Your task to perform on an android device: delete a single message in the gmail app Image 0: 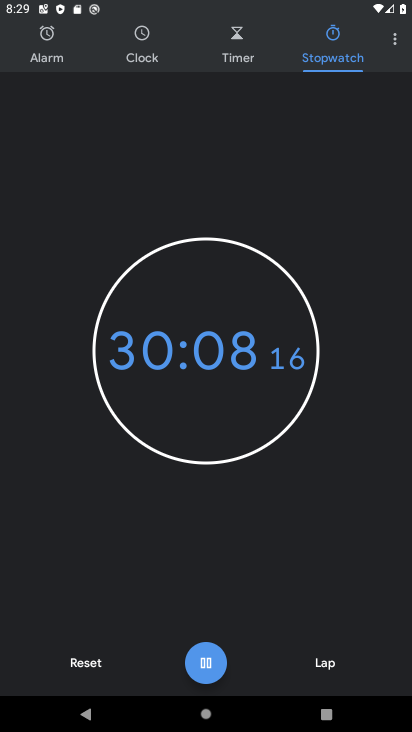
Step 0: press home button
Your task to perform on an android device: delete a single message in the gmail app Image 1: 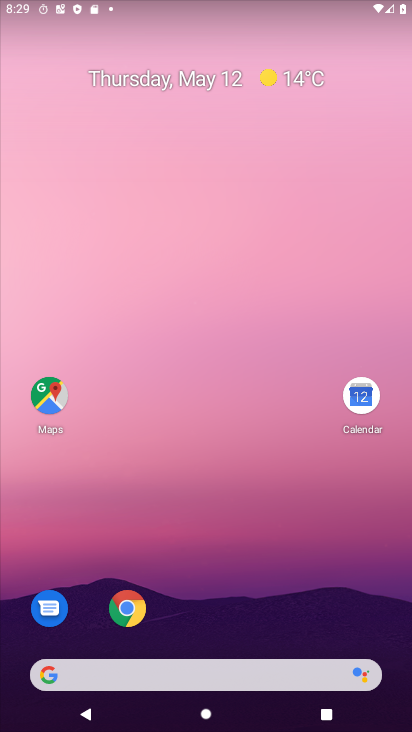
Step 1: drag from (267, 583) to (398, 185)
Your task to perform on an android device: delete a single message in the gmail app Image 2: 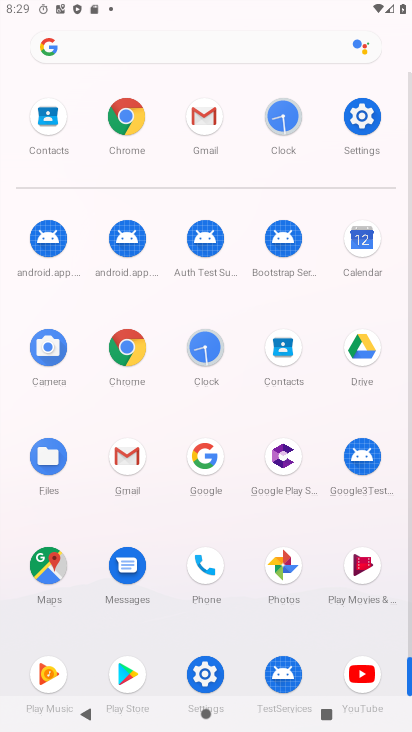
Step 2: click (202, 114)
Your task to perform on an android device: delete a single message in the gmail app Image 3: 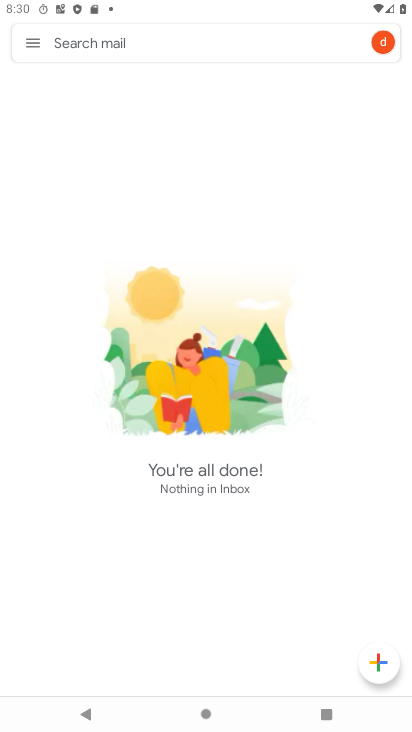
Step 3: click (24, 39)
Your task to perform on an android device: delete a single message in the gmail app Image 4: 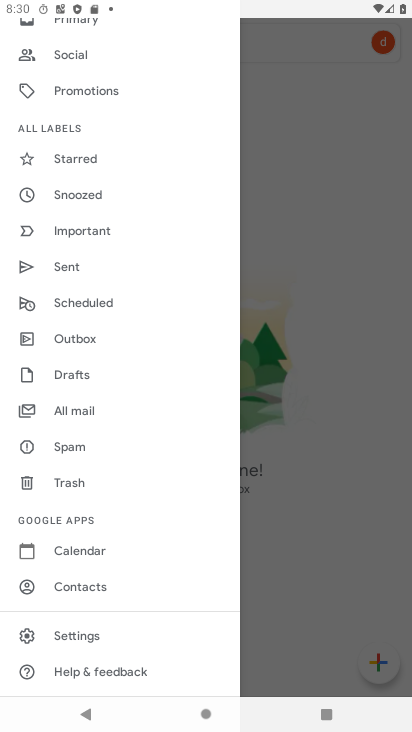
Step 4: drag from (108, 501) to (178, 118)
Your task to perform on an android device: delete a single message in the gmail app Image 5: 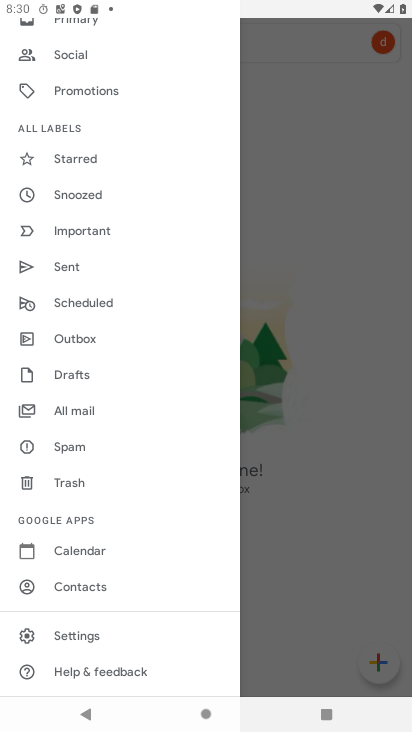
Step 5: click (79, 403)
Your task to perform on an android device: delete a single message in the gmail app Image 6: 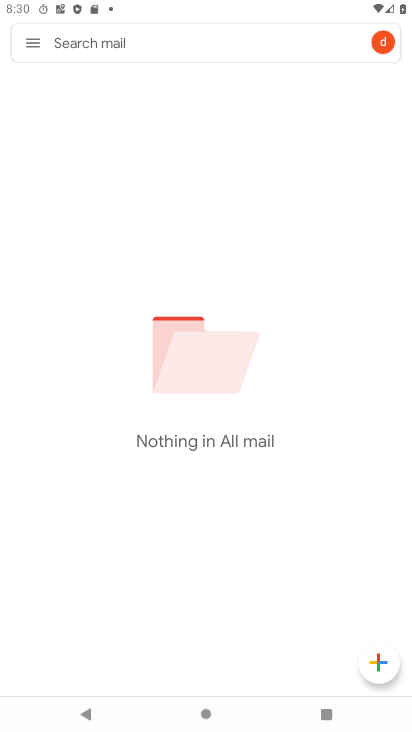
Step 6: click (41, 46)
Your task to perform on an android device: delete a single message in the gmail app Image 7: 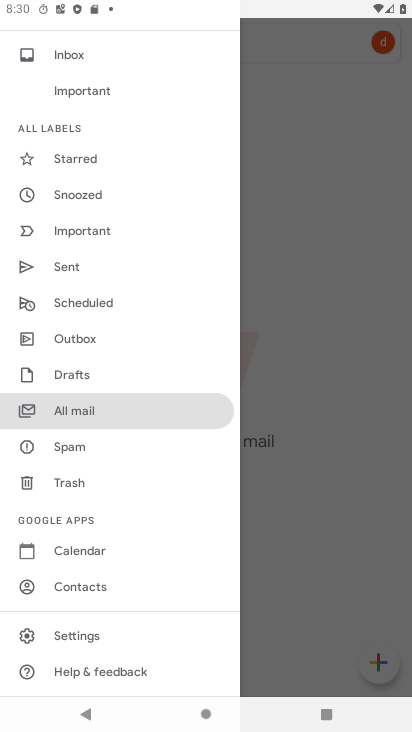
Step 7: click (130, 41)
Your task to perform on an android device: delete a single message in the gmail app Image 8: 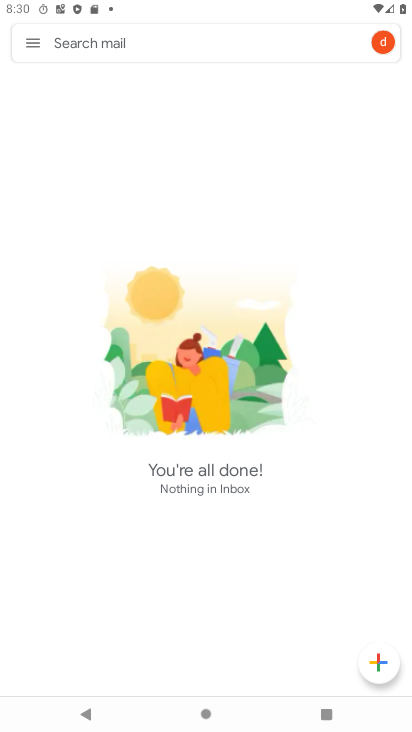
Step 8: task complete